Your task to perform on an android device: make emails show in primary in the gmail app Image 0: 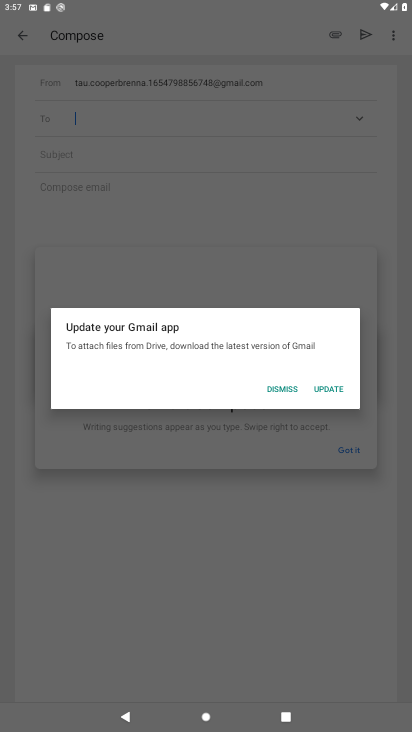
Step 0: press home button
Your task to perform on an android device: make emails show in primary in the gmail app Image 1: 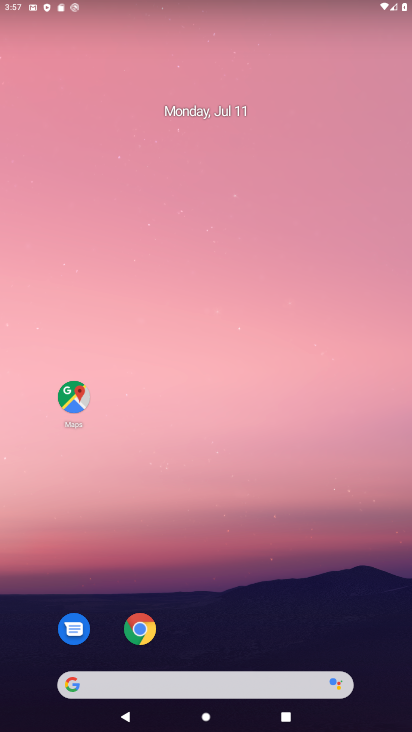
Step 1: drag from (199, 639) to (242, 90)
Your task to perform on an android device: make emails show in primary in the gmail app Image 2: 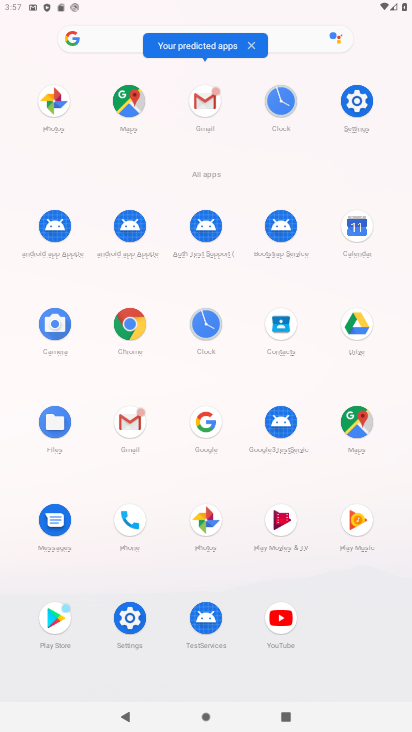
Step 2: click (132, 425)
Your task to perform on an android device: make emails show in primary in the gmail app Image 3: 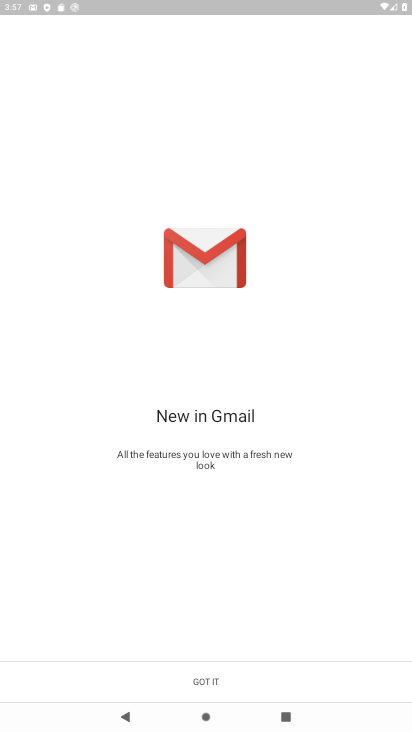
Step 3: press home button
Your task to perform on an android device: make emails show in primary in the gmail app Image 4: 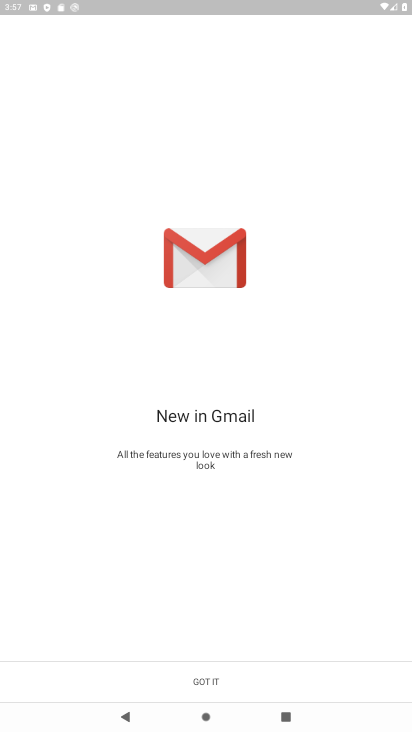
Step 4: drag from (271, 374) to (295, 278)
Your task to perform on an android device: make emails show in primary in the gmail app Image 5: 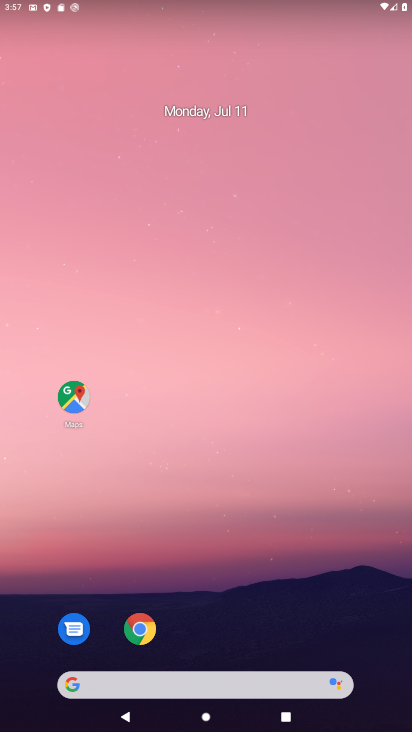
Step 5: drag from (187, 633) to (180, 46)
Your task to perform on an android device: make emails show in primary in the gmail app Image 6: 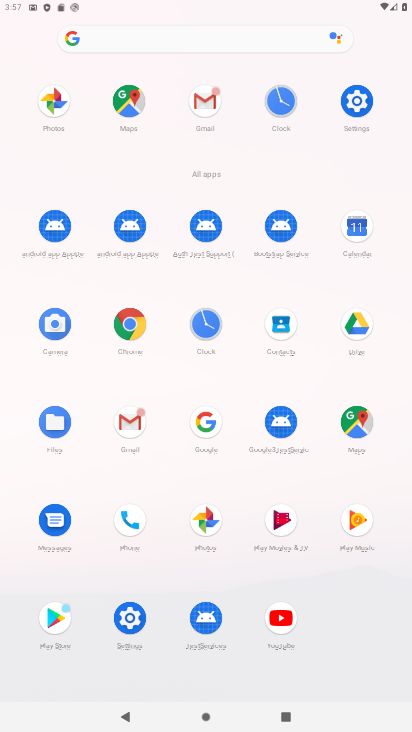
Step 6: click (208, 92)
Your task to perform on an android device: make emails show in primary in the gmail app Image 7: 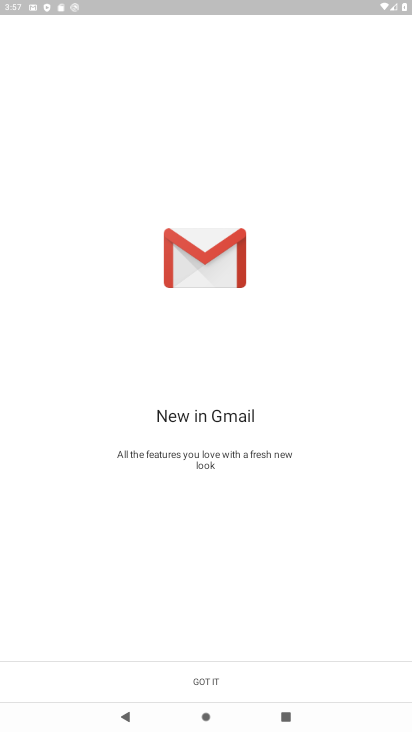
Step 7: click (182, 689)
Your task to perform on an android device: make emails show in primary in the gmail app Image 8: 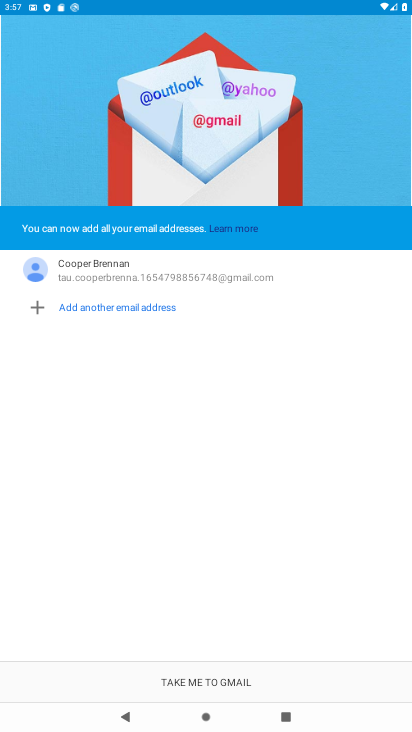
Step 8: click (222, 680)
Your task to perform on an android device: make emails show in primary in the gmail app Image 9: 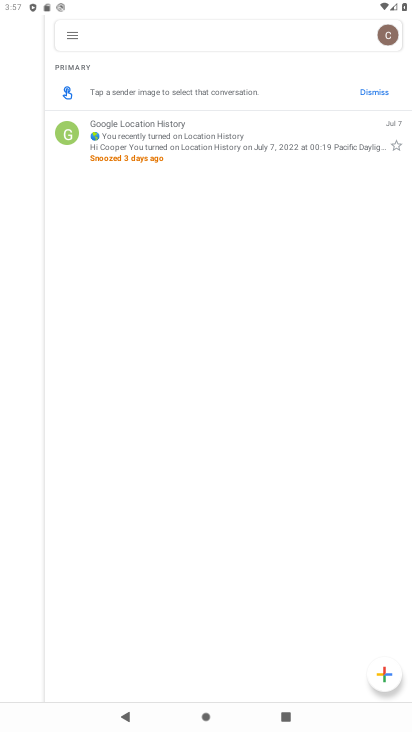
Step 9: click (68, 35)
Your task to perform on an android device: make emails show in primary in the gmail app Image 10: 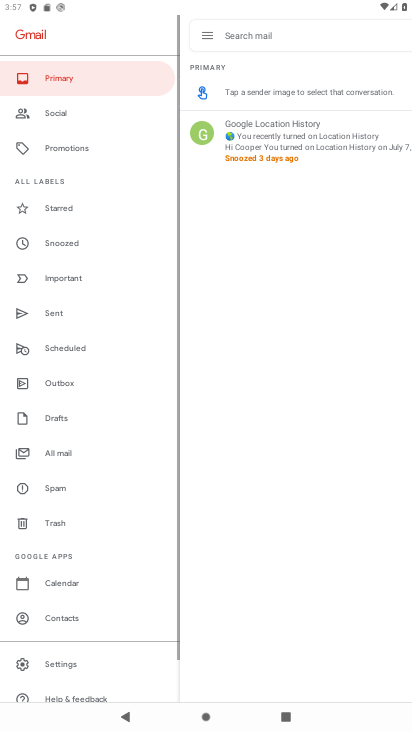
Step 10: click (93, 84)
Your task to perform on an android device: make emails show in primary in the gmail app Image 11: 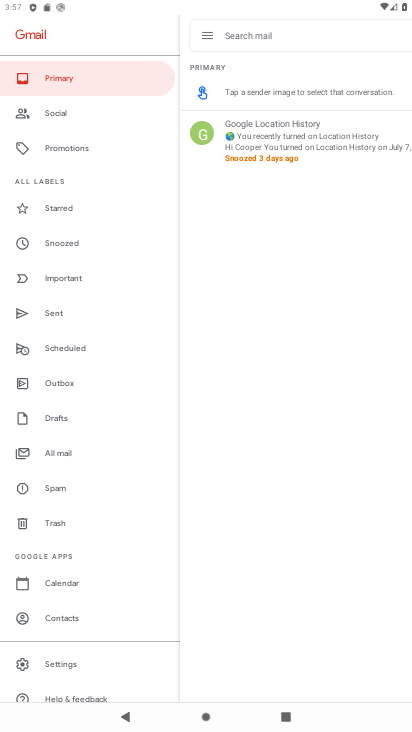
Step 11: drag from (262, 484) to (279, 223)
Your task to perform on an android device: make emails show in primary in the gmail app Image 12: 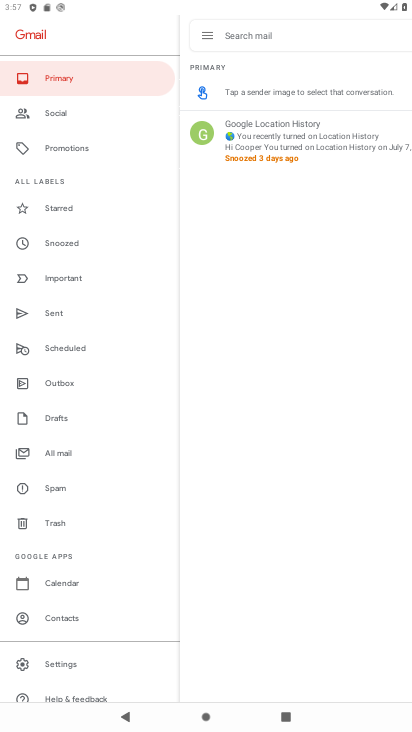
Step 12: click (309, 61)
Your task to perform on an android device: make emails show in primary in the gmail app Image 13: 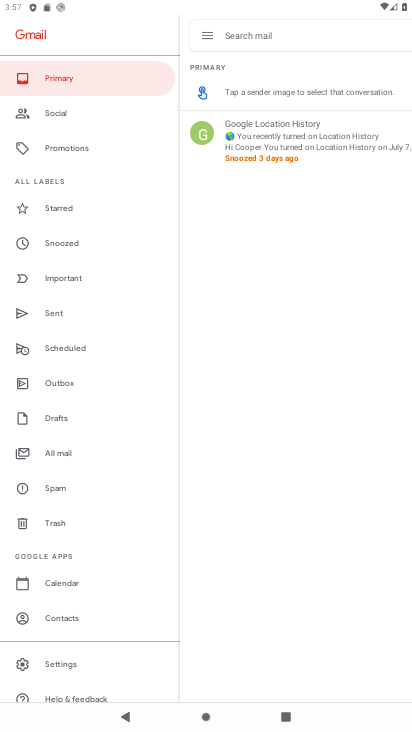
Step 13: drag from (305, 322) to (270, 187)
Your task to perform on an android device: make emails show in primary in the gmail app Image 14: 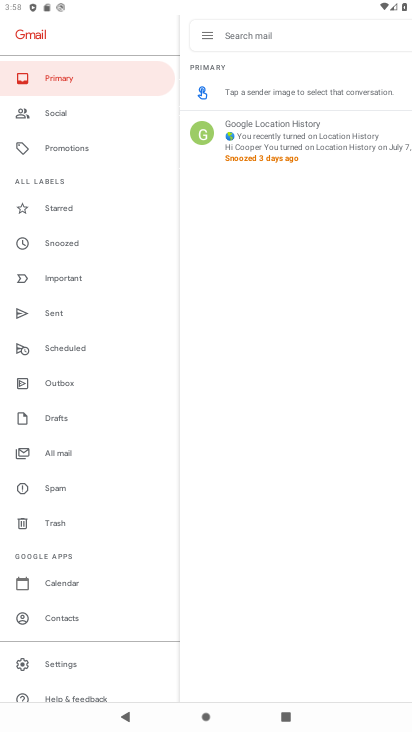
Step 14: click (198, 40)
Your task to perform on an android device: make emails show in primary in the gmail app Image 15: 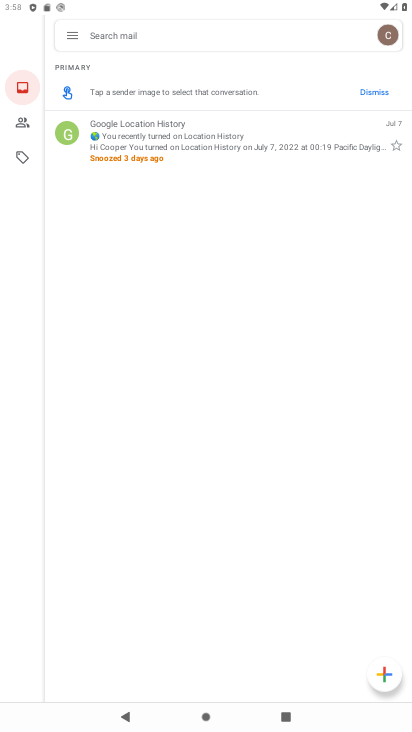
Step 15: drag from (215, 282) to (216, 236)
Your task to perform on an android device: make emails show in primary in the gmail app Image 16: 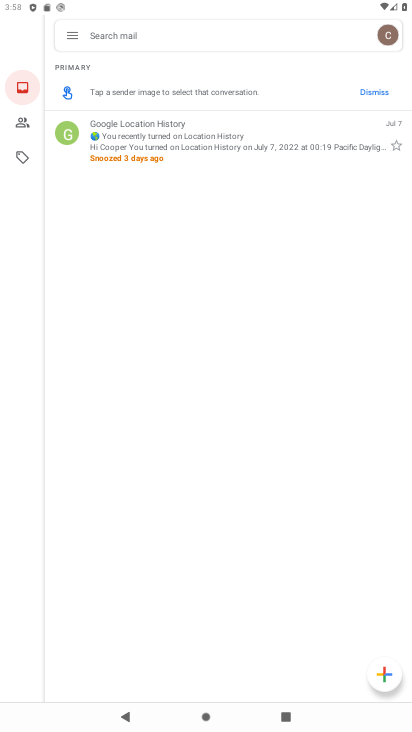
Step 16: drag from (264, 357) to (238, 198)
Your task to perform on an android device: make emails show in primary in the gmail app Image 17: 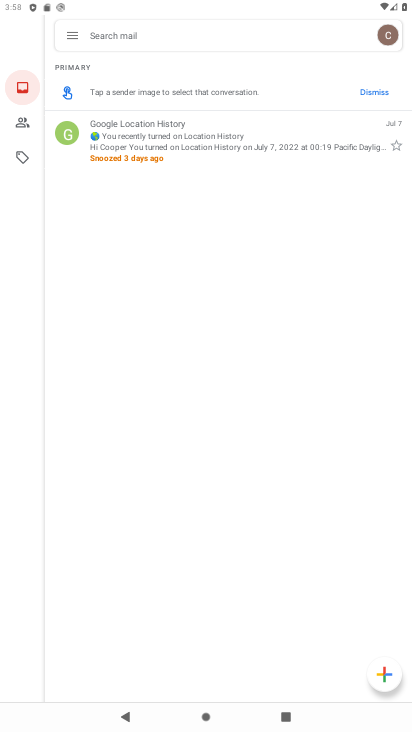
Step 17: drag from (188, 382) to (221, 231)
Your task to perform on an android device: make emails show in primary in the gmail app Image 18: 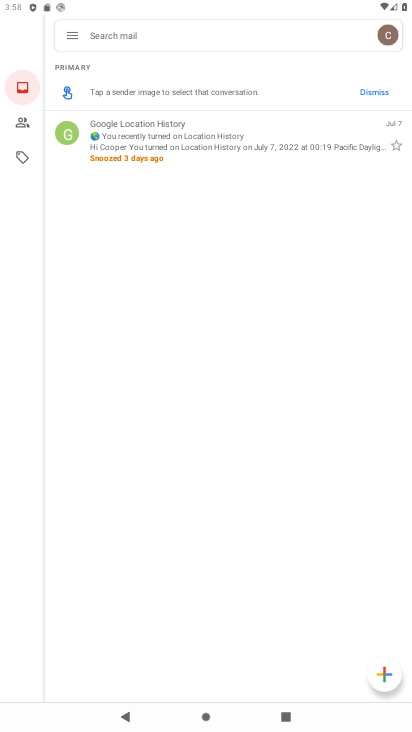
Step 18: click (67, 39)
Your task to perform on an android device: make emails show in primary in the gmail app Image 19: 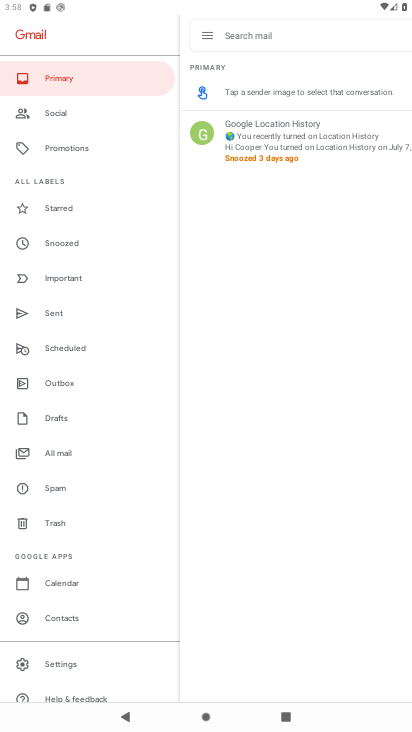
Step 19: click (203, 36)
Your task to perform on an android device: make emails show in primary in the gmail app Image 20: 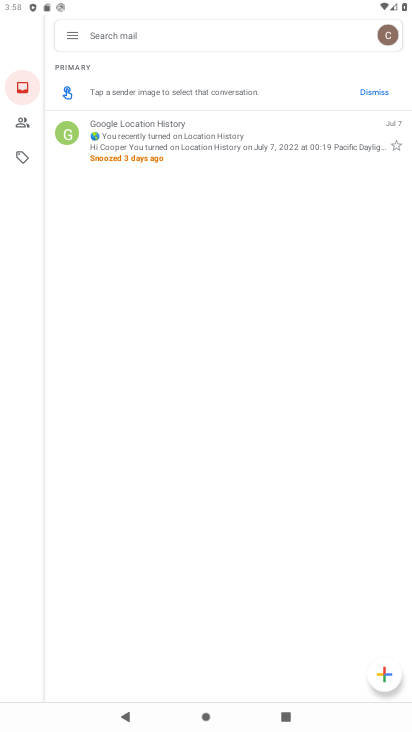
Step 20: task complete